Your task to perform on an android device: make emails show in primary in the gmail app Image 0: 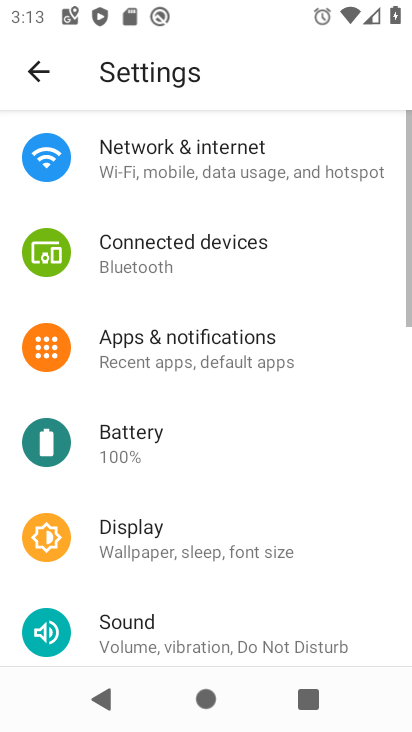
Step 0: press home button
Your task to perform on an android device: make emails show in primary in the gmail app Image 1: 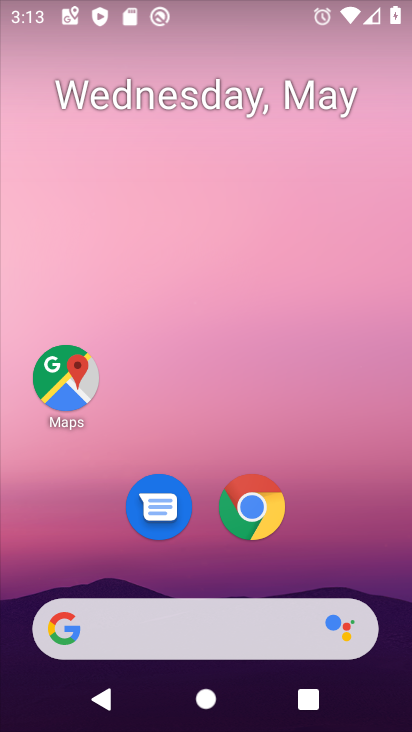
Step 1: drag from (211, 573) to (268, 98)
Your task to perform on an android device: make emails show in primary in the gmail app Image 2: 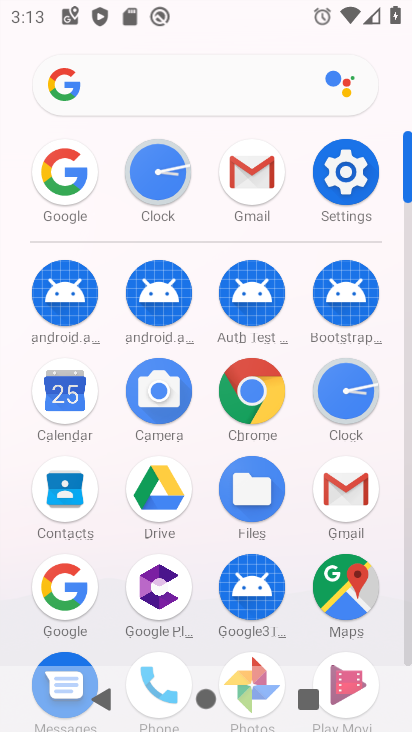
Step 2: click (251, 176)
Your task to perform on an android device: make emails show in primary in the gmail app Image 3: 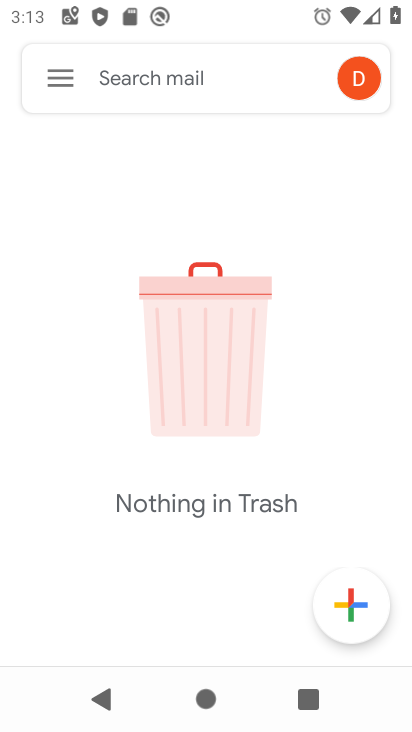
Step 3: click (48, 75)
Your task to perform on an android device: make emails show in primary in the gmail app Image 4: 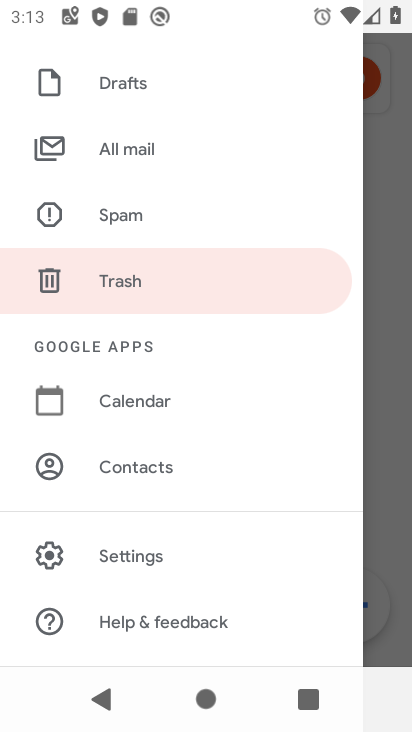
Step 4: drag from (155, 182) to (181, 141)
Your task to perform on an android device: make emails show in primary in the gmail app Image 5: 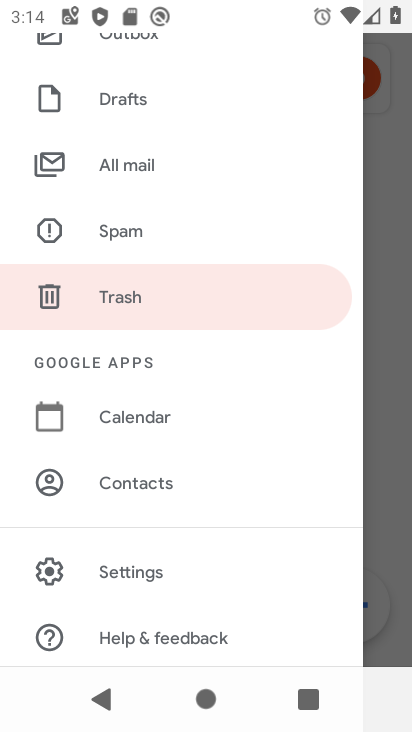
Step 5: click (121, 588)
Your task to perform on an android device: make emails show in primary in the gmail app Image 6: 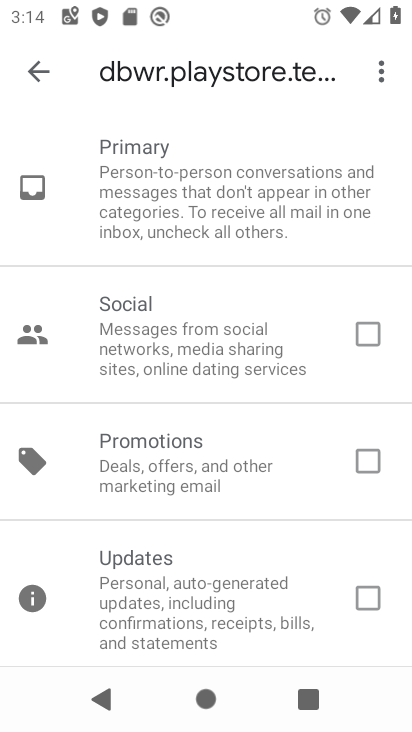
Step 6: task complete